Your task to perform on an android device: Open Maps and search for coffee Image 0: 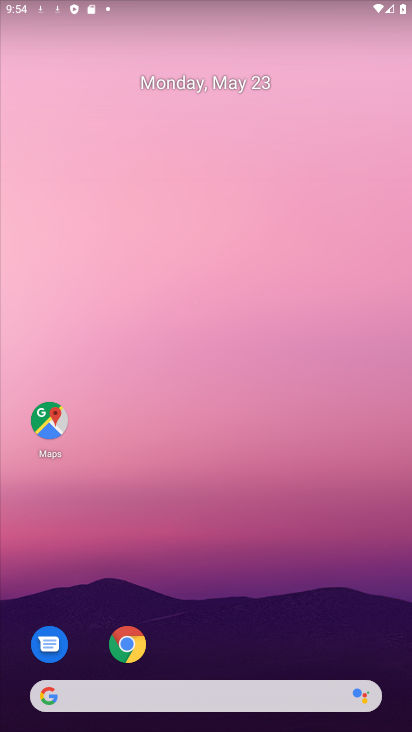
Step 0: drag from (285, 660) to (215, 174)
Your task to perform on an android device: Open Maps and search for coffee Image 1: 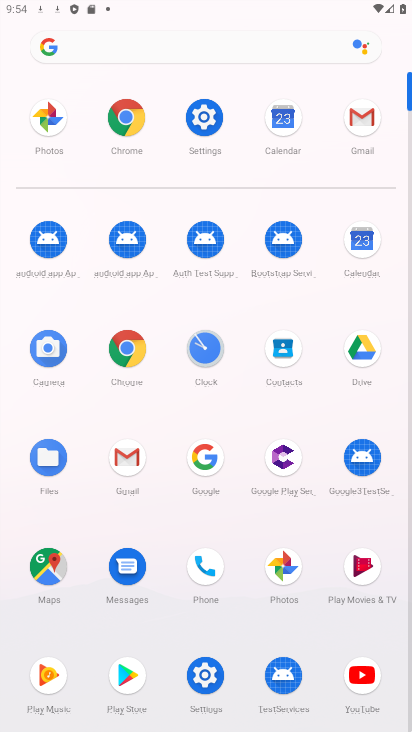
Step 1: click (51, 572)
Your task to perform on an android device: Open Maps and search for coffee Image 2: 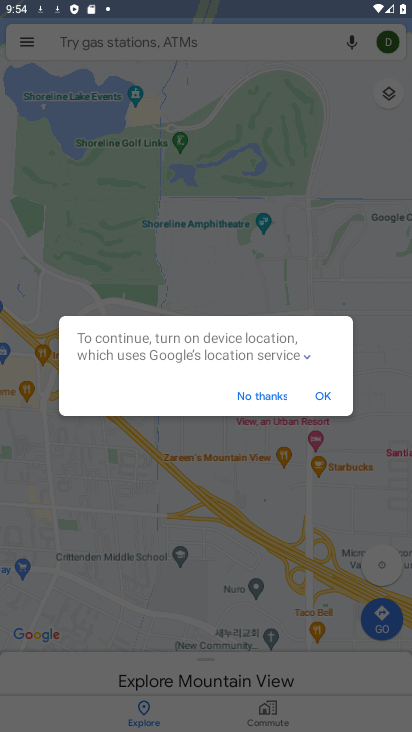
Step 2: click (256, 391)
Your task to perform on an android device: Open Maps and search for coffee Image 3: 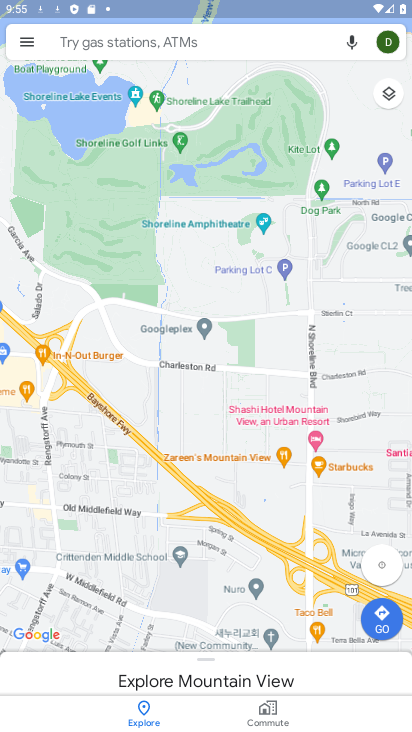
Step 3: click (36, 34)
Your task to perform on an android device: Open Maps and search for coffee Image 4: 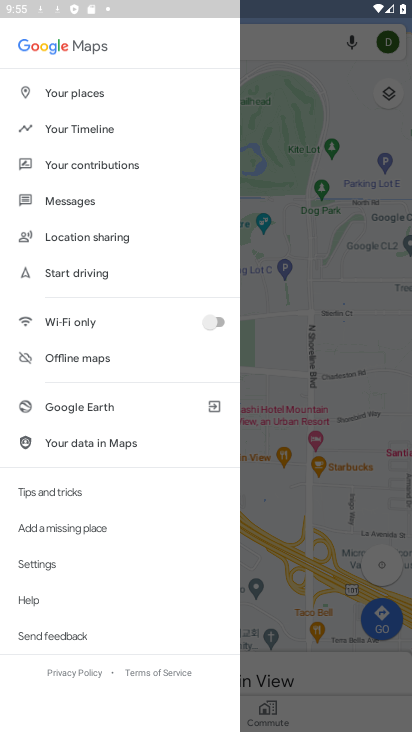
Step 4: click (296, 279)
Your task to perform on an android device: Open Maps and search for coffee Image 5: 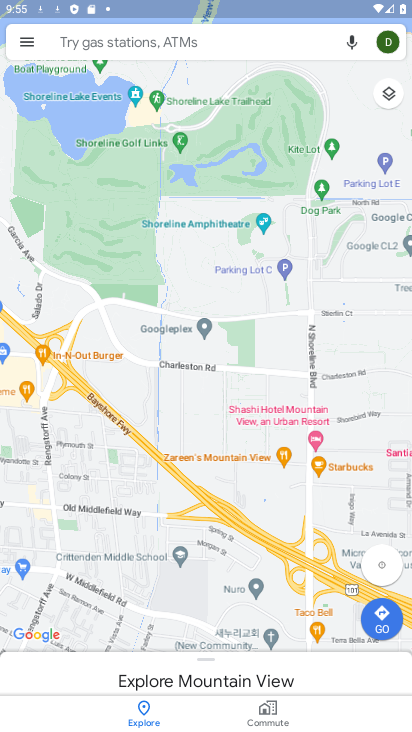
Step 5: click (201, 40)
Your task to perform on an android device: Open Maps and search for coffee Image 6: 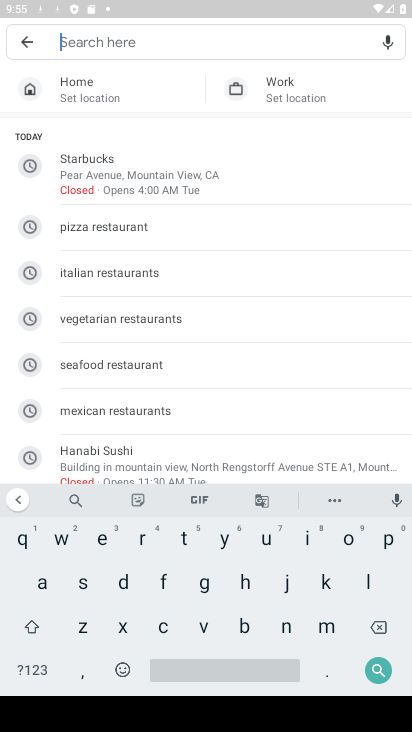
Step 6: click (159, 616)
Your task to perform on an android device: Open Maps and search for coffee Image 7: 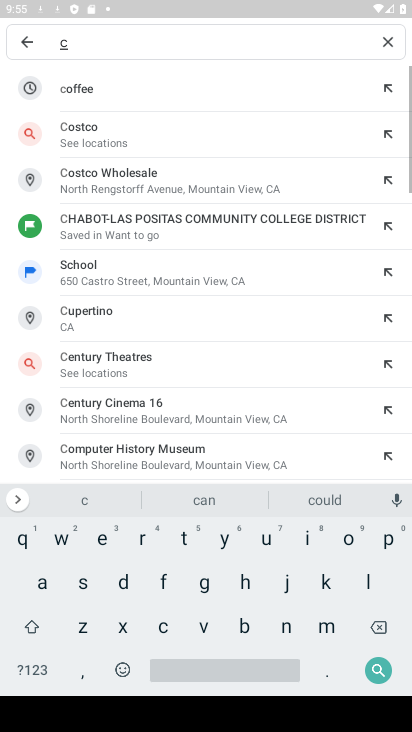
Step 7: click (160, 89)
Your task to perform on an android device: Open Maps and search for coffee Image 8: 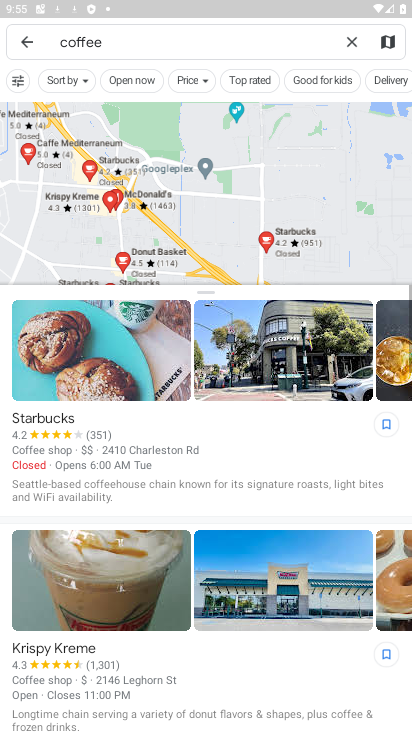
Step 8: task complete